Your task to perform on an android device: change the clock display to analog Image 0: 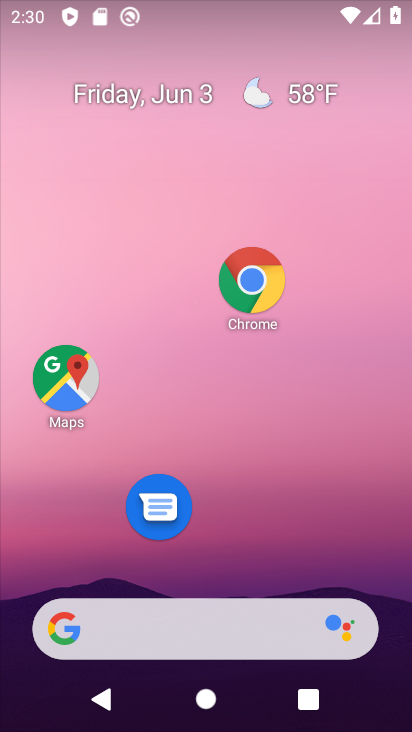
Step 0: drag from (253, 526) to (311, 73)
Your task to perform on an android device: change the clock display to analog Image 1: 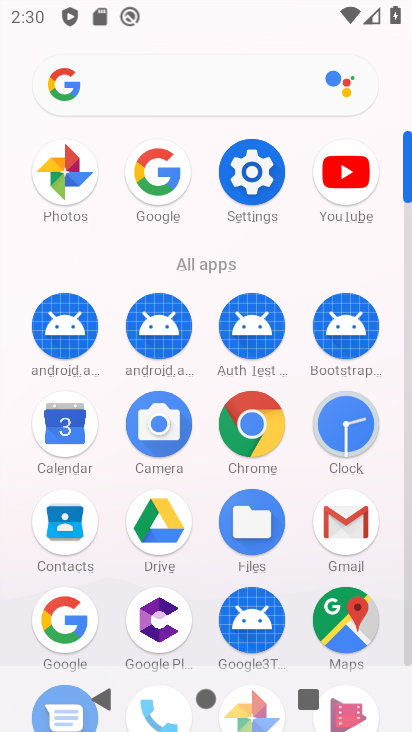
Step 1: click (348, 414)
Your task to perform on an android device: change the clock display to analog Image 2: 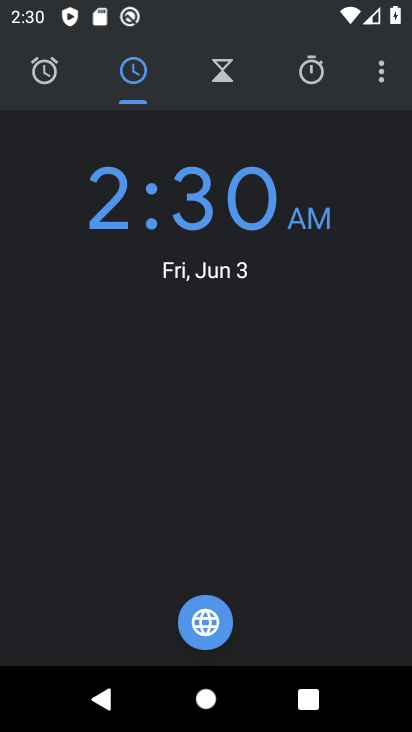
Step 2: click (367, 74)
Your task to perform on an android device: change the clock display to analog Image 3: 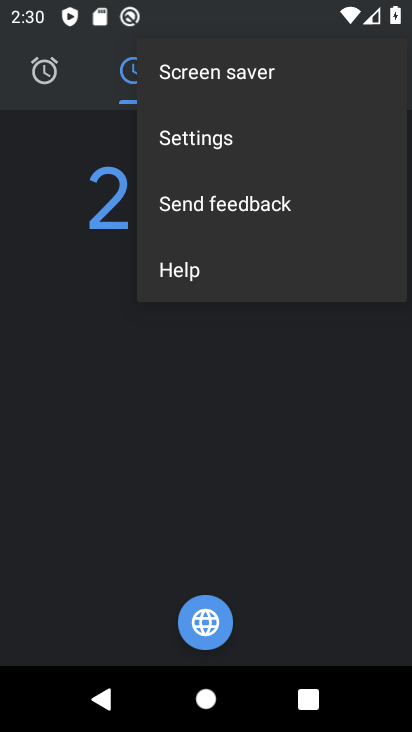
Step 3: click (215, 133)
Your task to perform on an android device: change the clock display to analog Image 4: 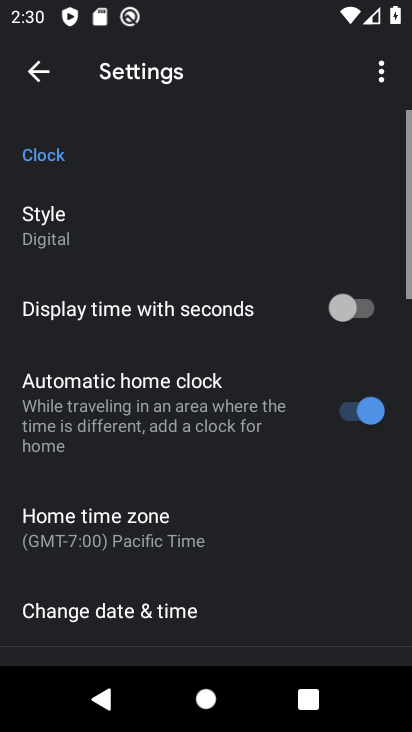
Step 4: click (103, 216)
Your task to perform on an android device: change the clock display to analog Image 5: 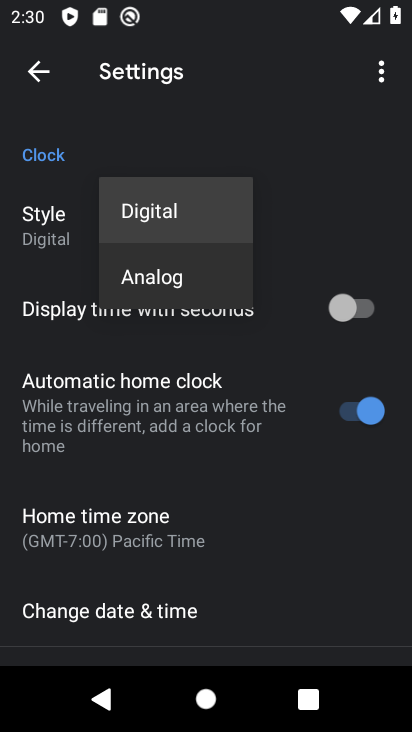
Step 5: click (144, 278)
Your task to perform on an android device: change the clock display to analog Image 6: 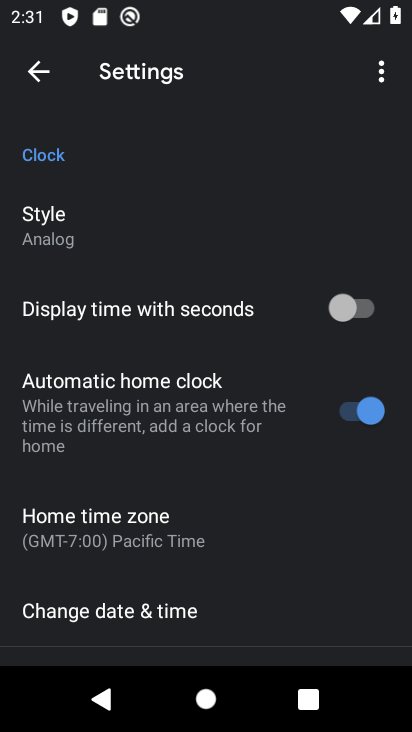
Step 6: task complete